Your task to perform on an android device: turn off airplane mode Image 0: 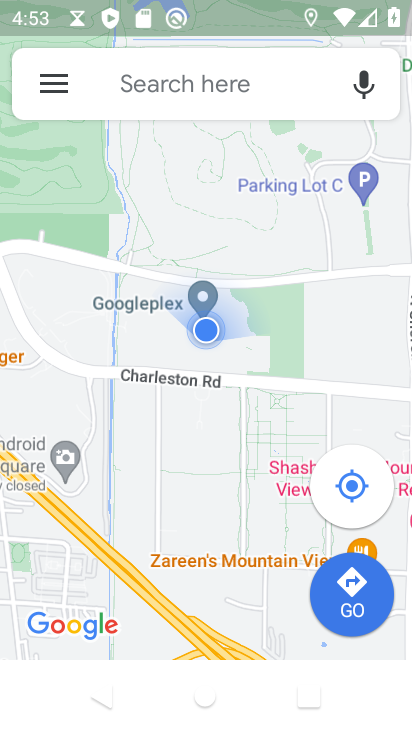
Step 0: press back button
Your task to perform on an android device: turn off airplane mode Image 1: 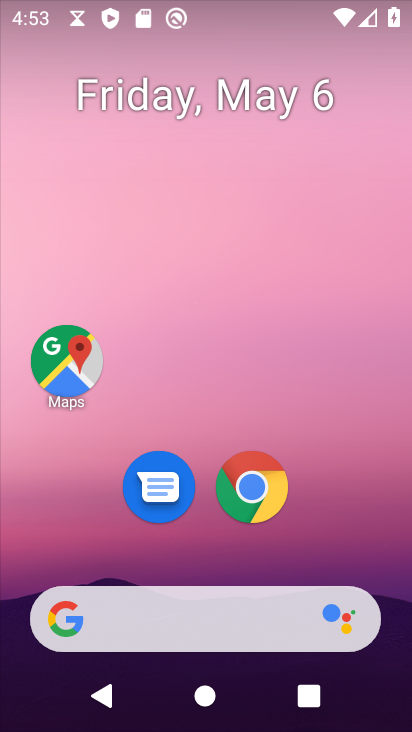
Step 1: drag from (317, 524) to (194, 5)
Your task to perform on an android device: turn off airplane mode Image 2: 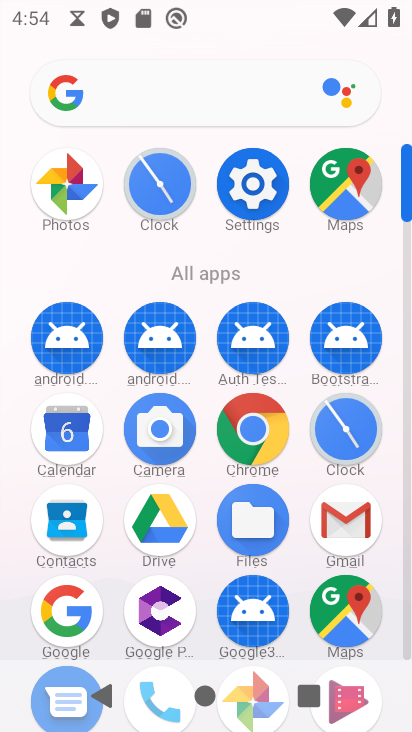
Step 2: click (252, 181)
Your task to perform on an android device: turn off airplane mode Image 3: 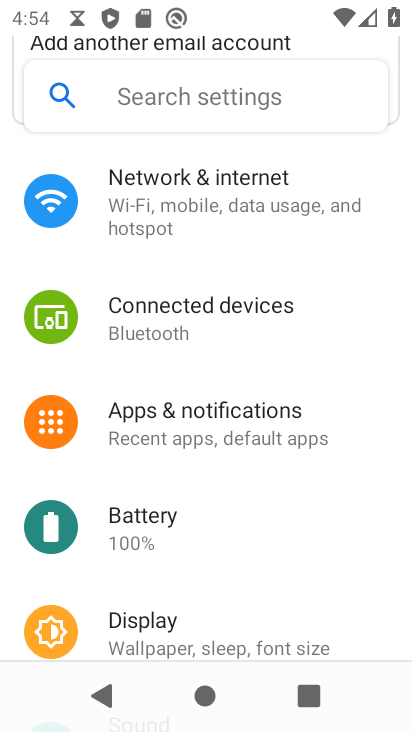
Step 3: click (247, 174)
Your task to perform on an android device: turn off airplane mode Image 4: 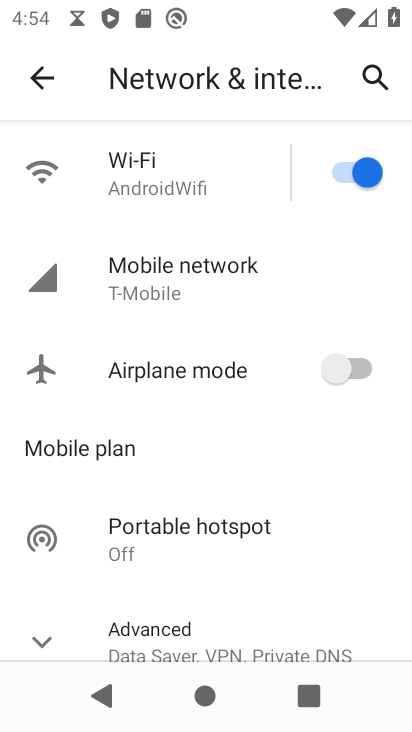
Step 4: task complete